Your task to perform on an android device: create a new album in the google photos Image 0: 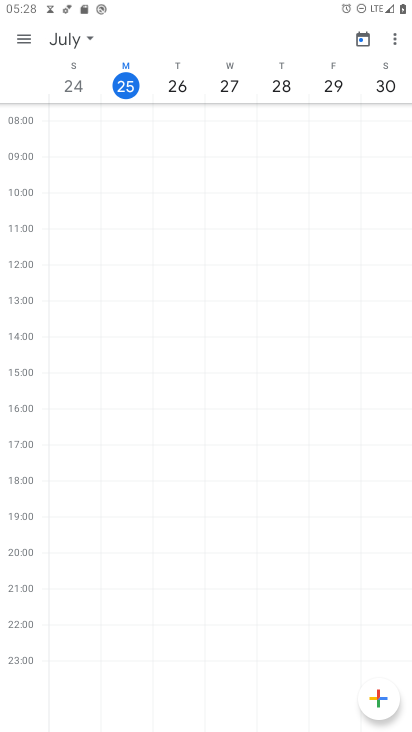
Step 0: press home button
Your task to perform on an android device: create a new album in the google photos Image 1: 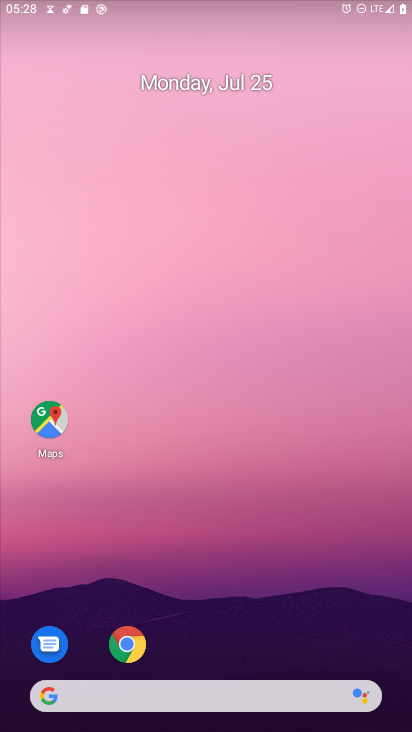
Step 1: drag from (269, 276) to (270, 150)
Your task to perform on an android device: create a new album in the google photos Image 2: 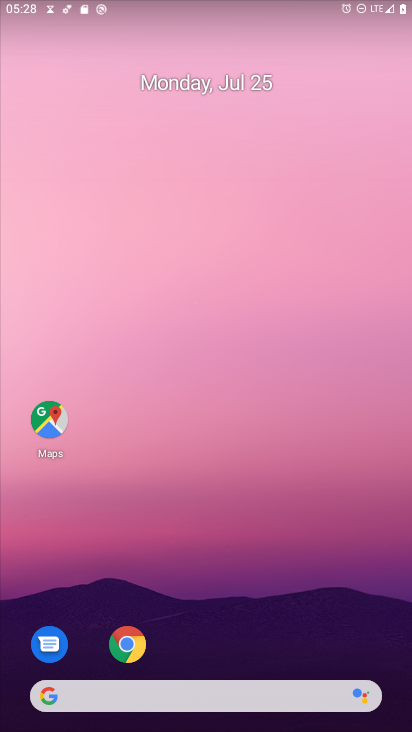
Step 2: drag from (261, 472) to (254, 56)
Your task to perform on an android device: create a new album in the google photos Image 3: 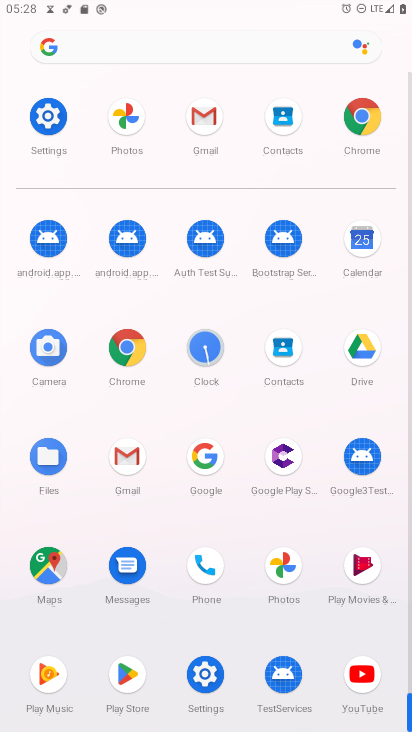
Step 3: click (295, 559)
Your task to perform on an android device: create a new album in the google photos Image 4: 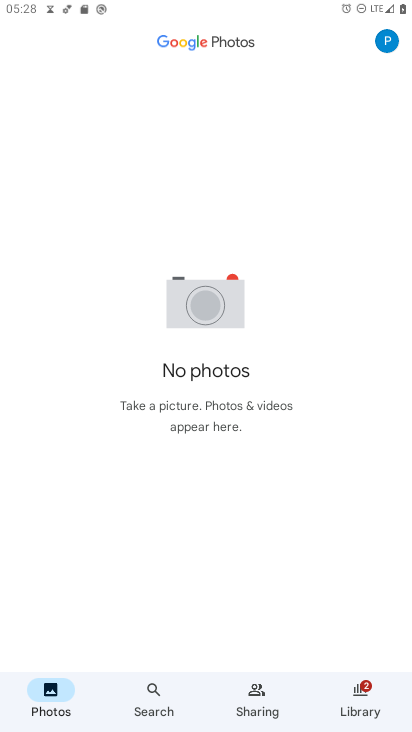
Step 4: task complete